Your task to perform on an android device: Check the news Image 0: 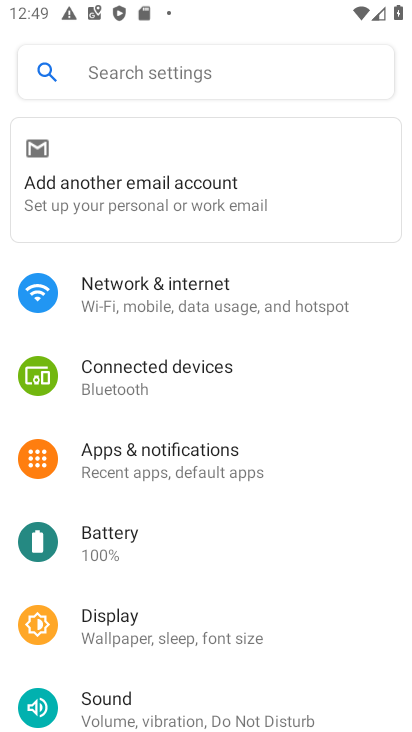
Step 0: press home button
Your task to perform on an android device: Check the news Image 1: 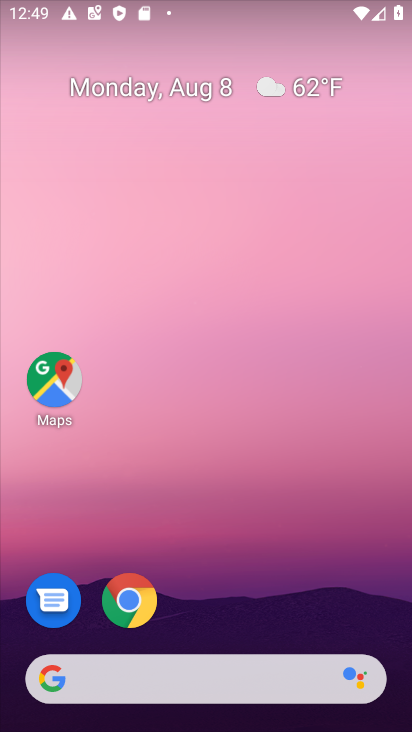
Step 1: drag from (232, 629) to (260, 158)
Your task to perform on an android device: Check the news Image 2: 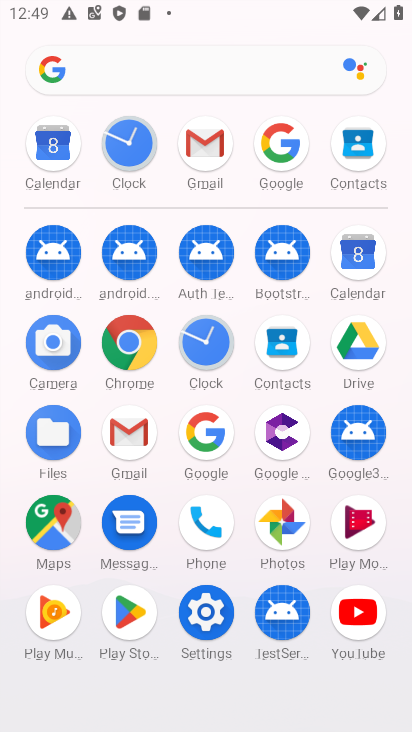
Step 2: click (223, 428)
Your task to perform on an android device: Check the news Image 3: 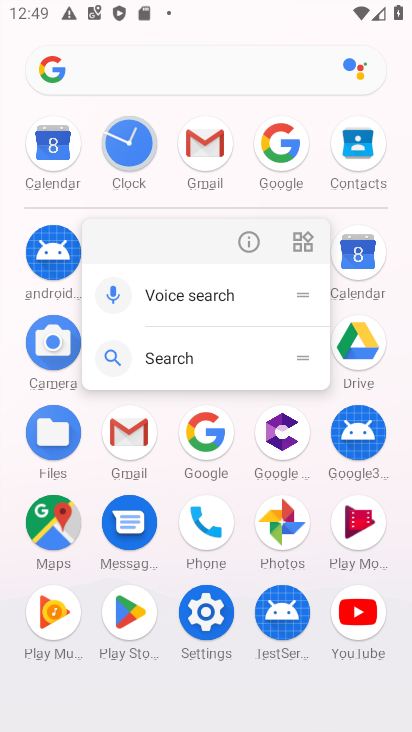
Step 3: click (208, 443)
Your task to perform on an android device: Check the news Image 4: 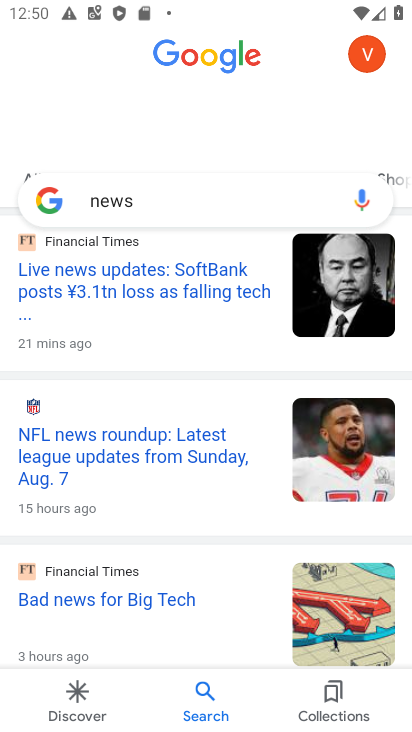
Step 4: task complete